Your task to perform on an android device: turn on airplane mode Image 0: 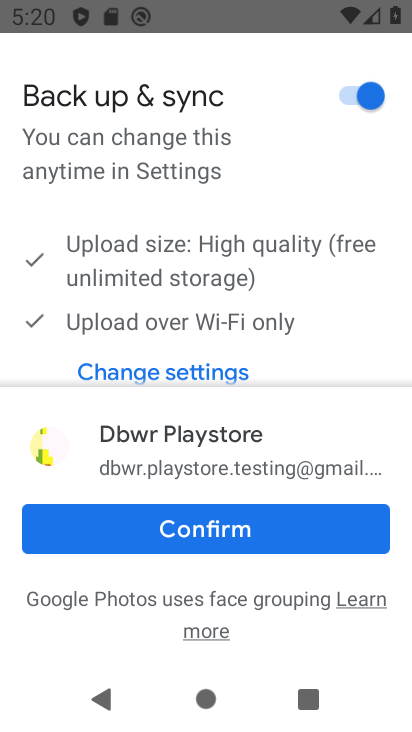
Step 0: click (294, 532)
Your task to perform on an android device: turn on airplane mode Image 1: 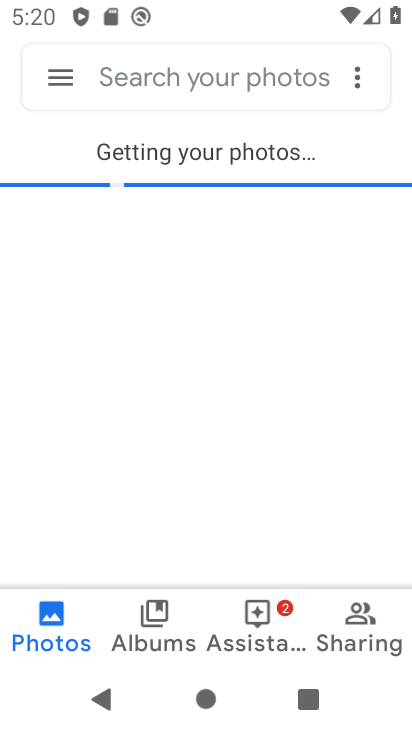
Step 1: drag from (269, 10) to (254, 518)
Your task to perform on an android device: turn on airplane mode Image 2: 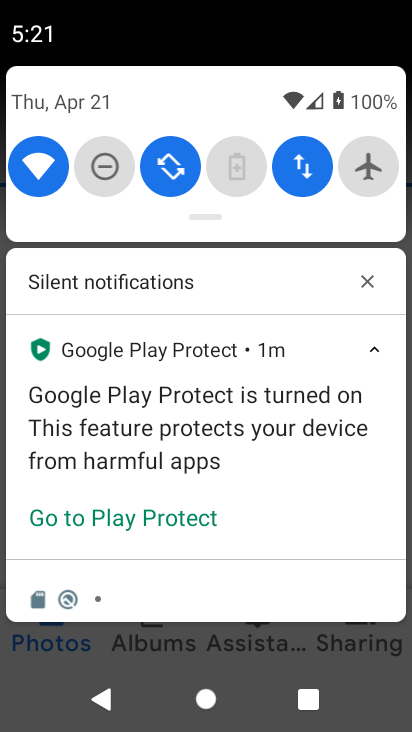
Step 2: drag from (266, 234) to (237, 526)
Your task to perform on an android device: turn on airplane mode Image 3: 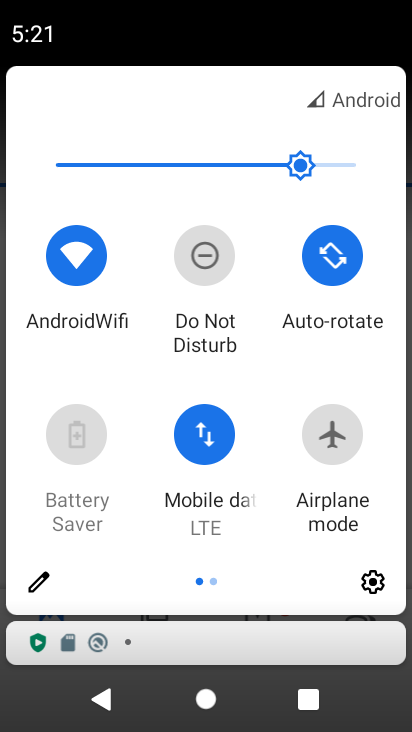
Step 3: click (333, 439)
Your task to perform on an android device: turn on airplane mode Image 4: 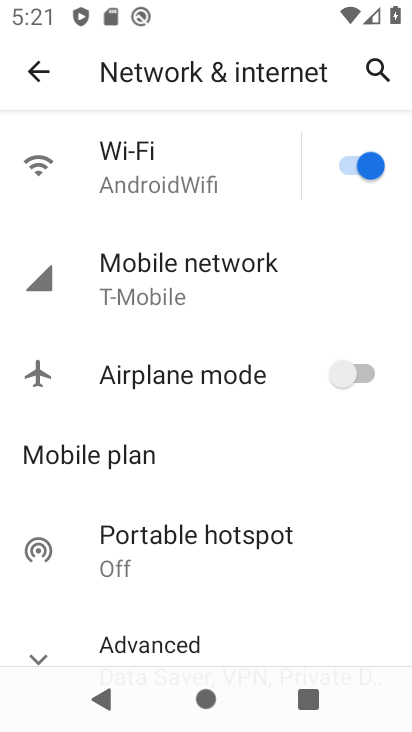
Step 4: click (369, 365)
Your task to perform on an android device: turn on airplane mode Image 5: 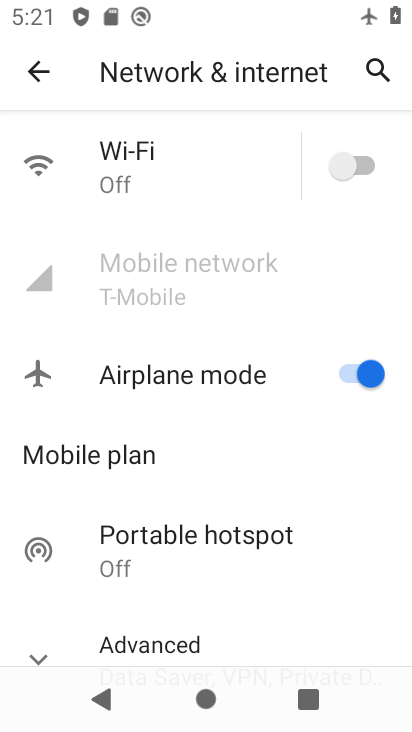
Step 5: task complete